Your task to perform on an android device: Open battery settings Image 0: 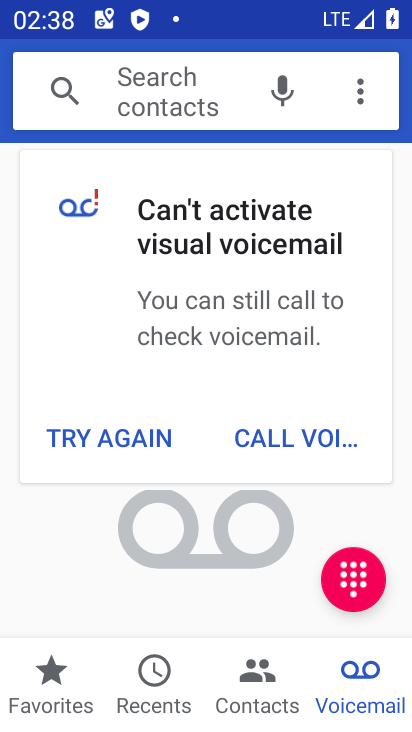
Step 0: press home button
Your task to perform on an android device: Open battery settings Image 1: 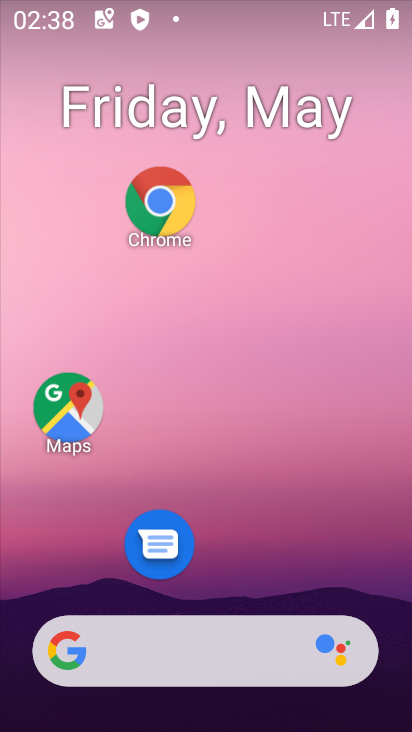
Step 1: drag from (233, 529) to (224, 198)
Your task to perform on an android device: Open battery settings Image 2: 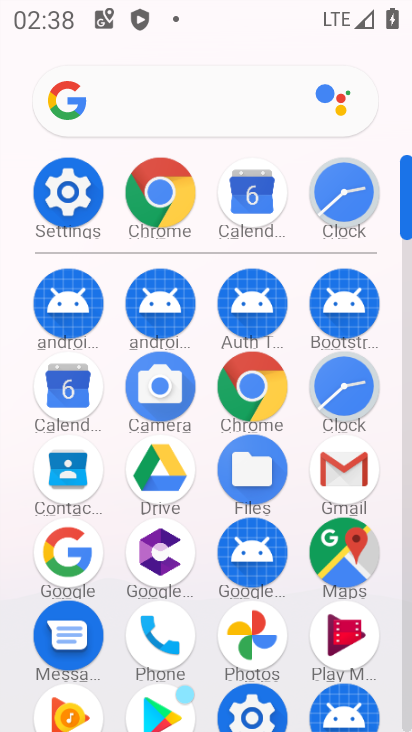
Step 2: click (59, 212)
Your task to perform on an android device: Open battery settings Image 3: 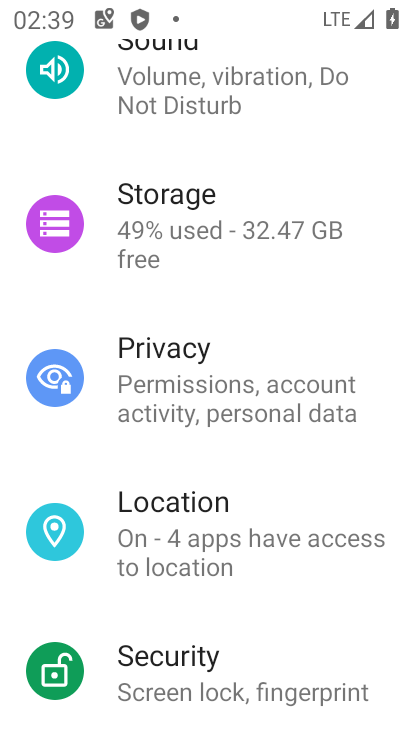
Step 3: drag from (203, 281) to (208, 653)
Your task to perform on an android device: Open battery settings Image 4: 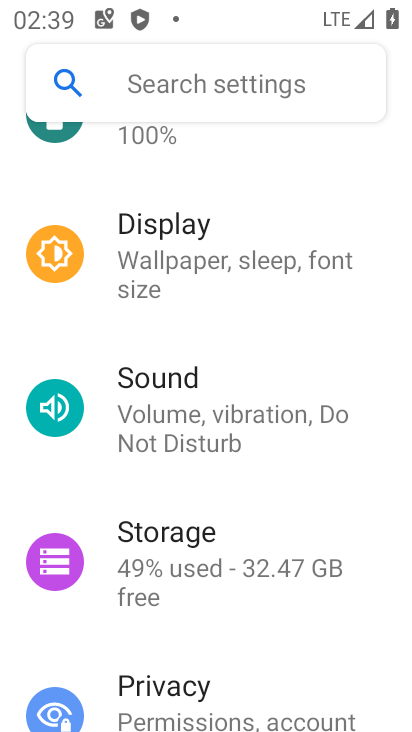
Step 4: drag from (189, 344) to (233, 544)
Your task to perform on an android device: Open battery settings Image 5: 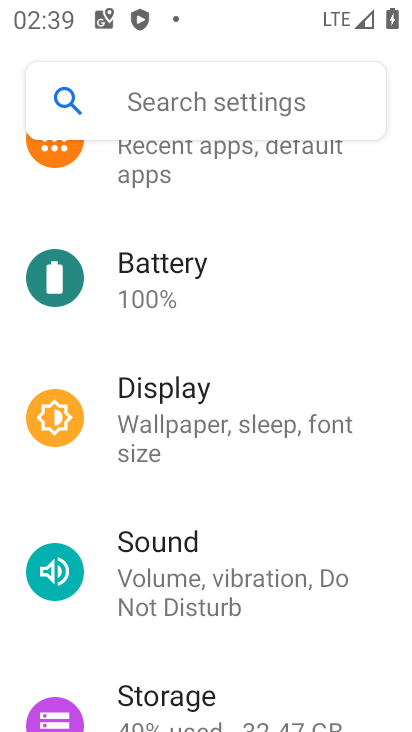
Step 5: click (167, 308)
Your task to perform on an android device: Open battery settings Image 6: 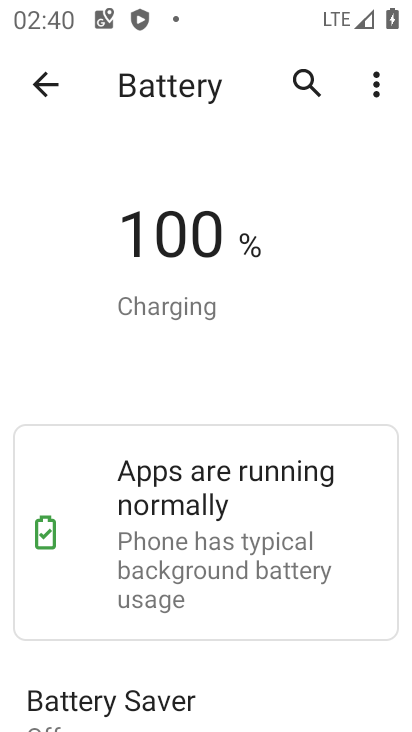
Step 6: click (372, 98)
Your task to perform on an android device: Open battery settings Image 7: 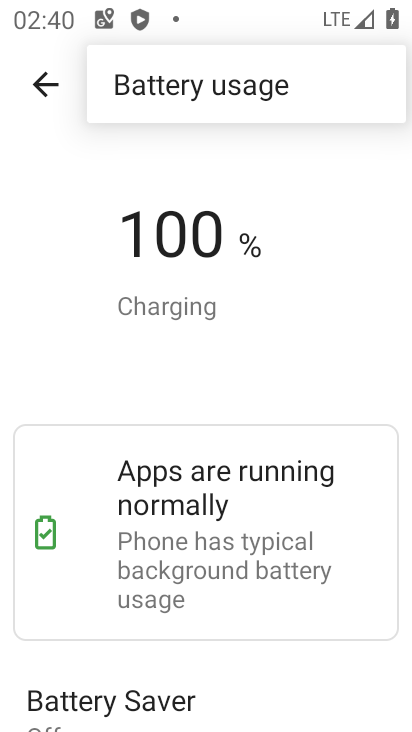
Step 7: task complete